Your task to perform on an android device: toggle javascript in the chrome app Image 0: 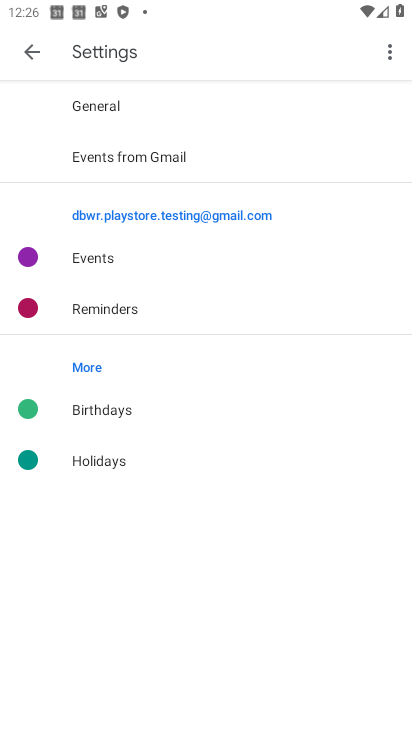
Step 0: press home button
Your task to perform on an android device: toggle javascript in the chrome app Image 1: 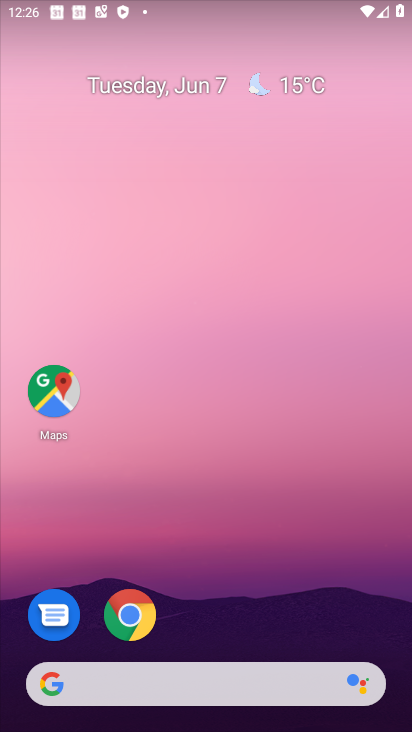
Step 1: click (131, 625)
Your task to perform on an android device: toggle javascript in the chrome app Image 2: 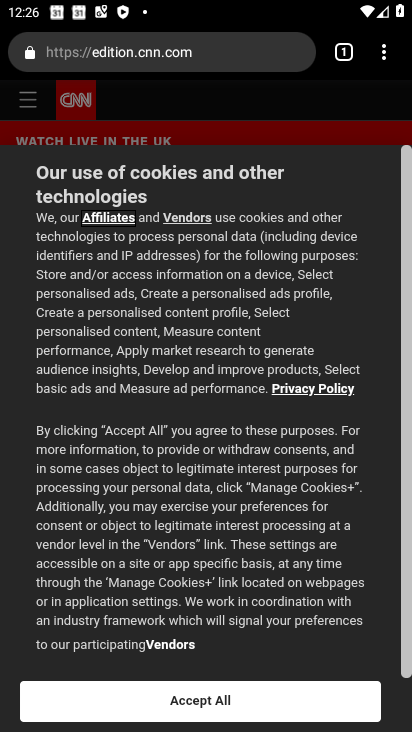
Step 2: click (388, 55)
Your task to perform on an android device: toggle javascript in the chrome app Image 3: 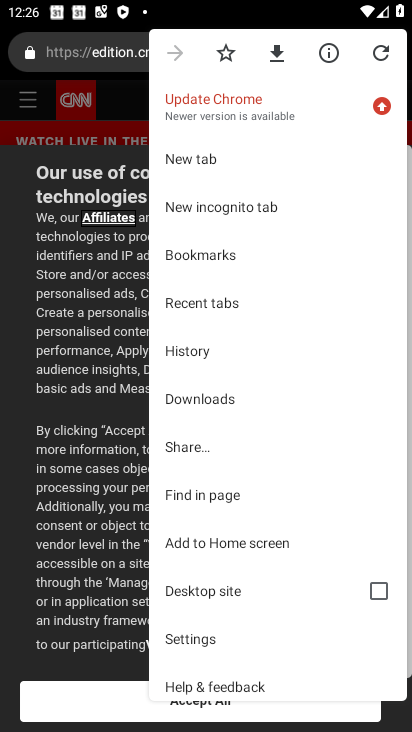
Step 3: click (198, 643)
Your task to perform on an android device: toggle javascript in the chrome app Image 4: 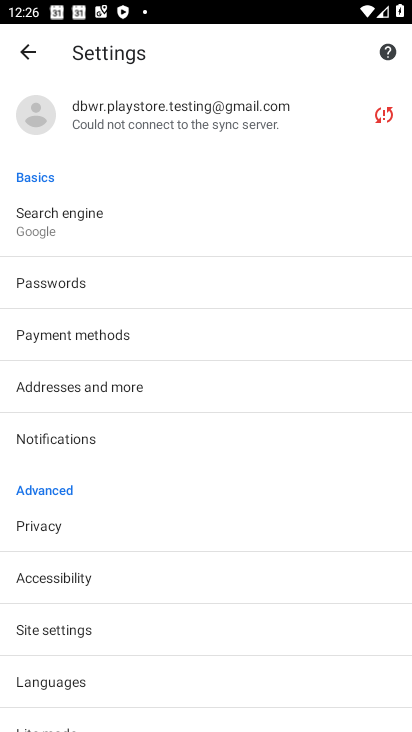
Step 4: click (48, 630)
Your task to perform on an android device: toggle javascript in the chrome app Image 5: 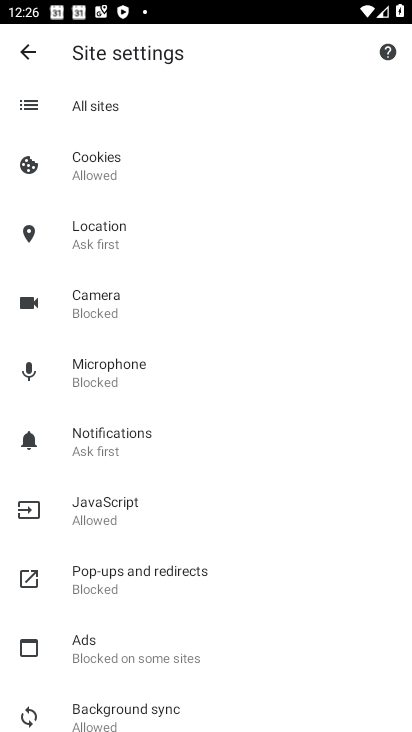
Step 5: click (123, 513)
Your task to perform on an android device: toggle javascript in the chrome app Image 6: 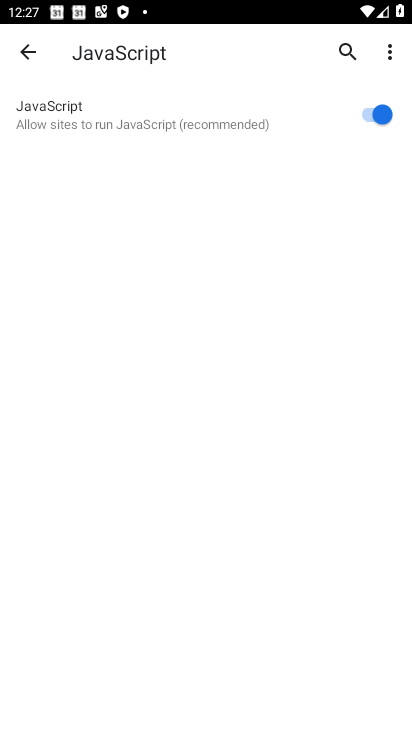
Step 6: click (375, 116)
Your task to perform on an android device: toggle javascript in the chrome app Image 7: 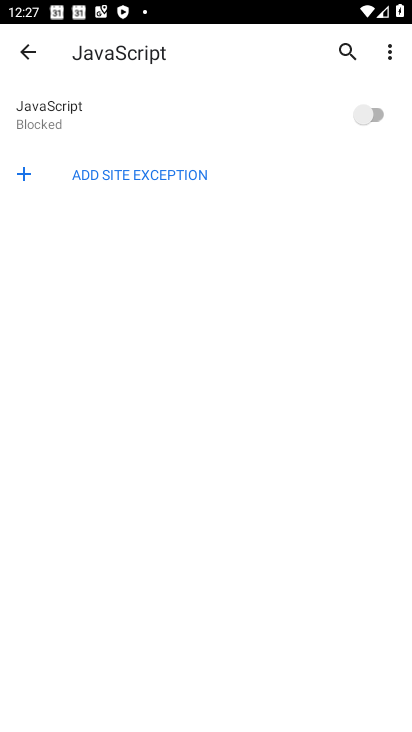
Step 7: task complete